Your task to perform on an android device: add a contact Image 0: 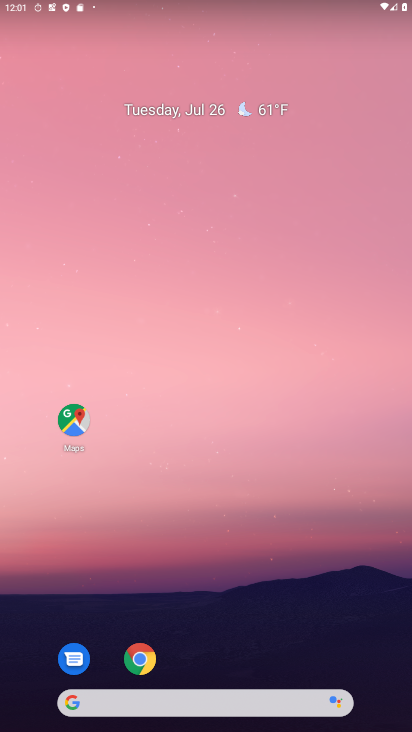
Step 0: click (271, 52)
Your task to perform on an android device: add a contact Image 1: 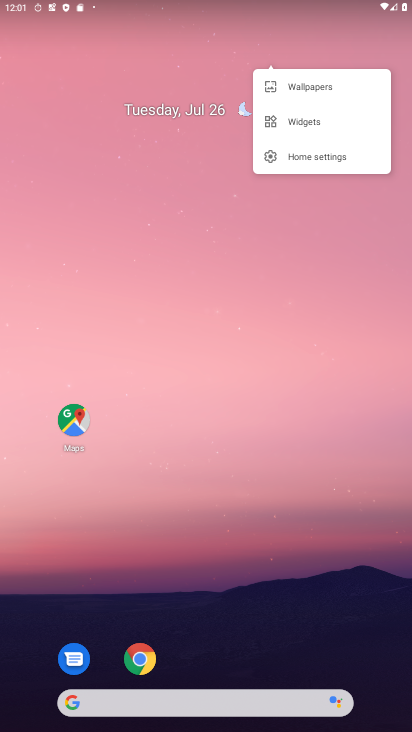
Step 1: drag from (72, 613) to (237, 305)
Your task to perform on an android device: add a contact Image 2: 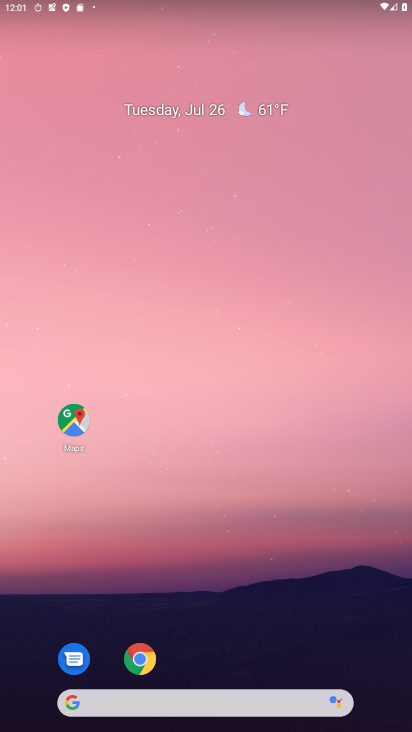
Step 2: drag from (31, 687) to (299, 91)
Your task to perform on an android device: add a contact Image 3: 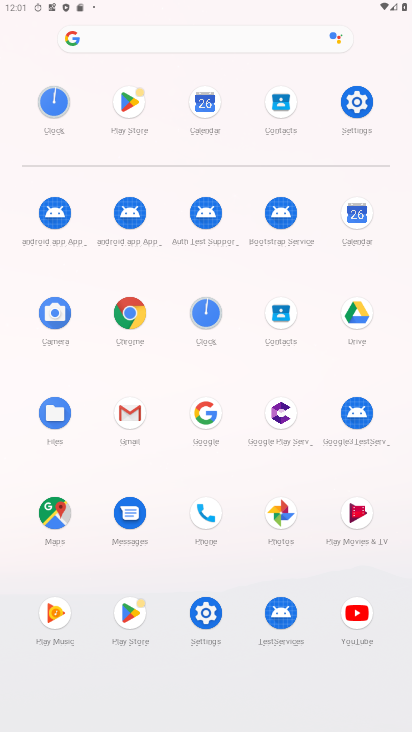
Step 3: click (210, 518)
Your task to perform on an android device: add a contact Image 4: 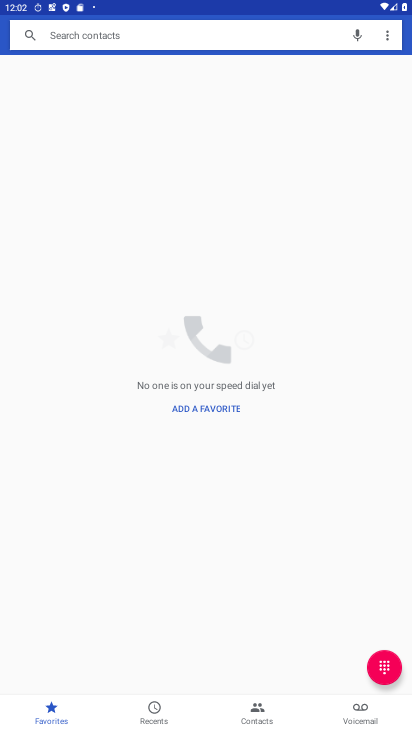
Step 4: click (260, 727)
Your task to perform on an android device: add a contact Image 5: 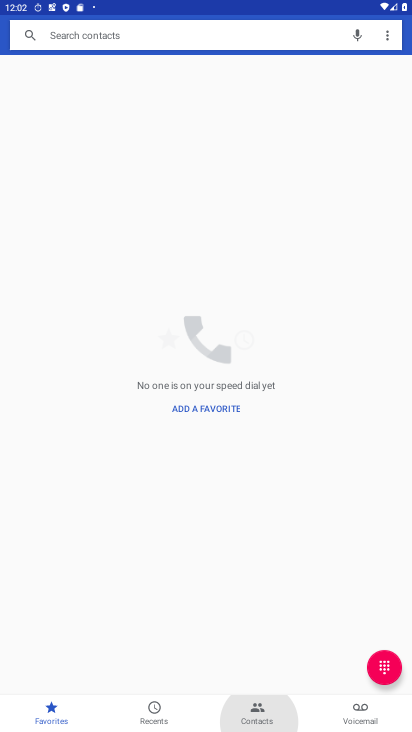
Step 5: click (256, 709)
Your task to perform on an android device: add a contact Image 6: 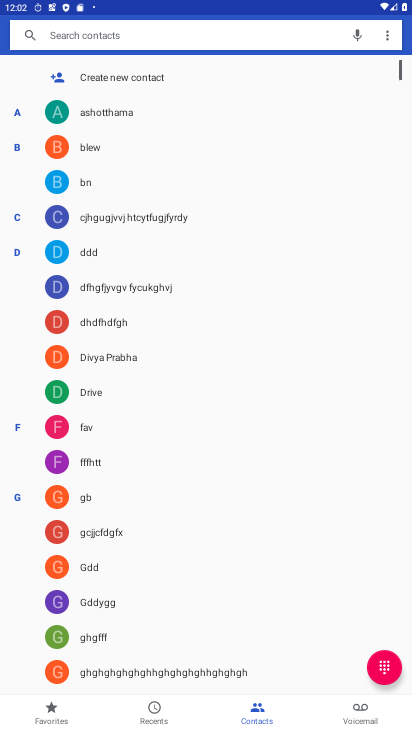
Step 6: click (130, 74)
Your task to perform on an android device: add a contact Image 7: 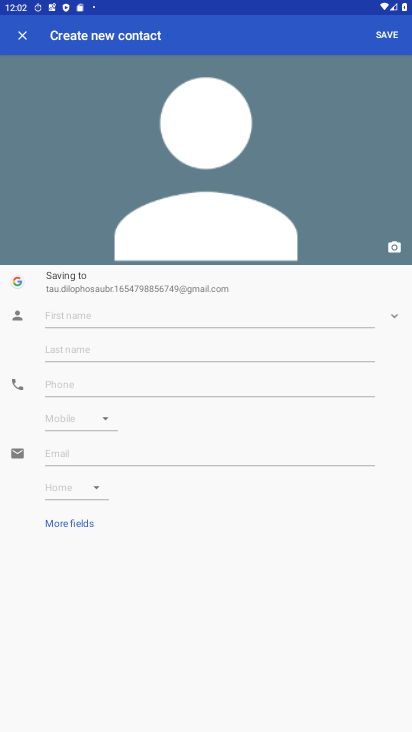
Step 7: click (87, 318)
Your task to perform on an android device: add a contact Image 8: 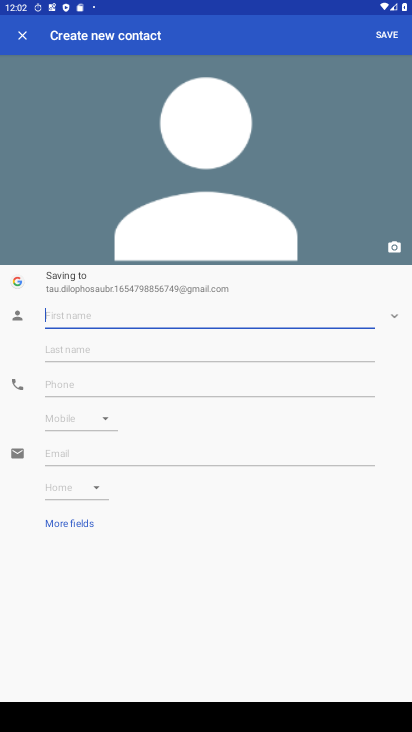
Step 8: type "dsgbrbf"
Your task to perform on an android device: add a contact Image 9: 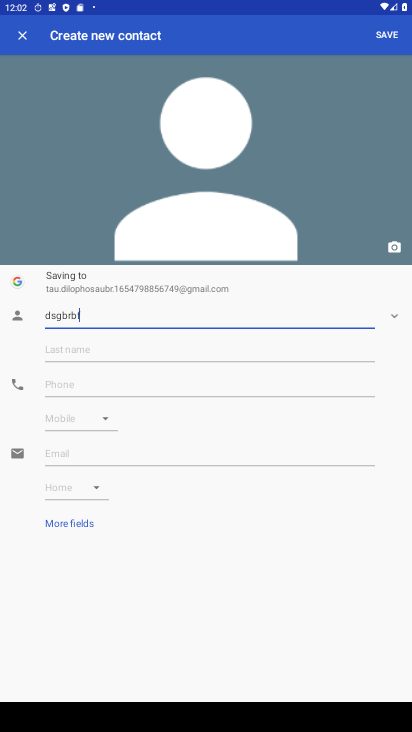
Step 9: type ""
Your task to perform on an android device: add a contact Image 10: 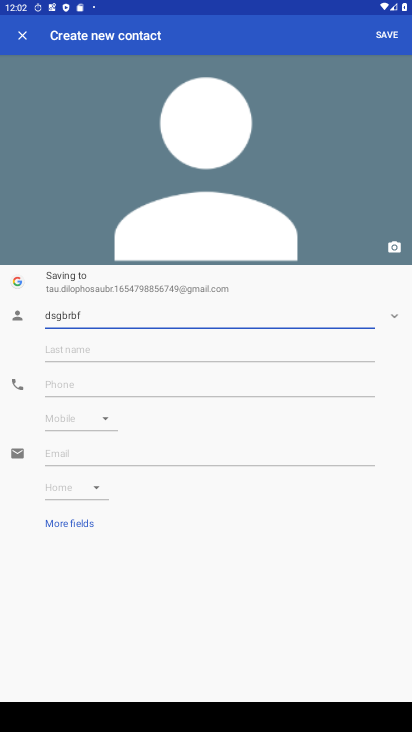
Step 10: click (375, 22)
Your task to perform on an android device: add a contact Image 11: 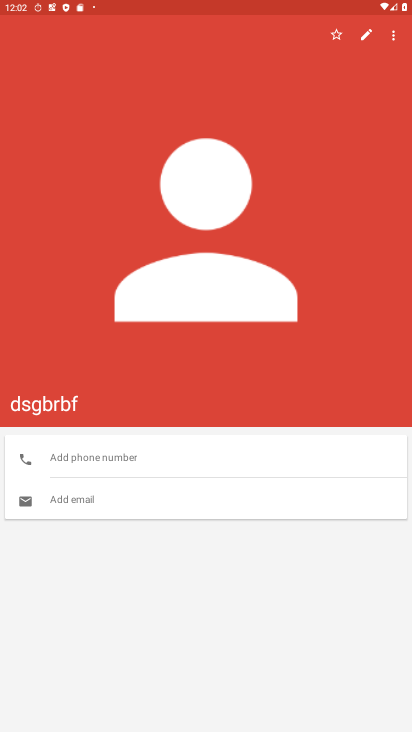
Step 11: task complete